Your task to perform on an android device: Go to CNN.com Image 0: 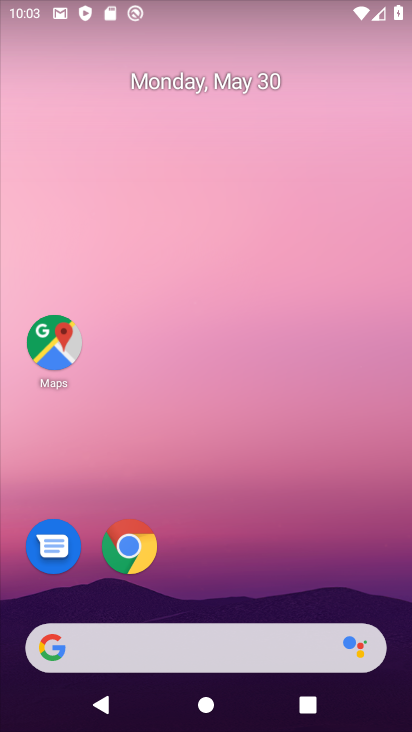
Step 0: click (129, 535)
Your task to perform on an android device: Go to CNN.com Image 1: 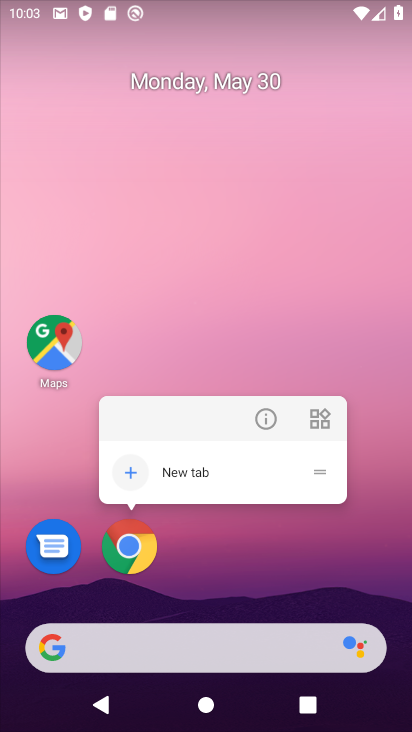
Step 1: click (129, 535)
Your task to perform on an android device: Go to CNN.com Image 2: 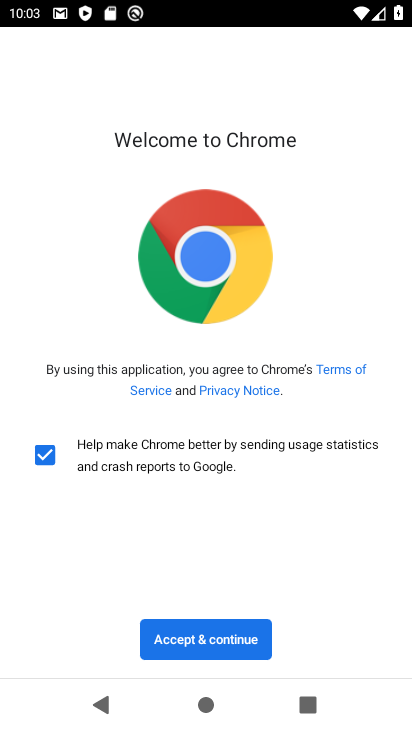
Step 2: click (202, 636)
Your task to perform on an android device: Go to CNN.com Image 3: 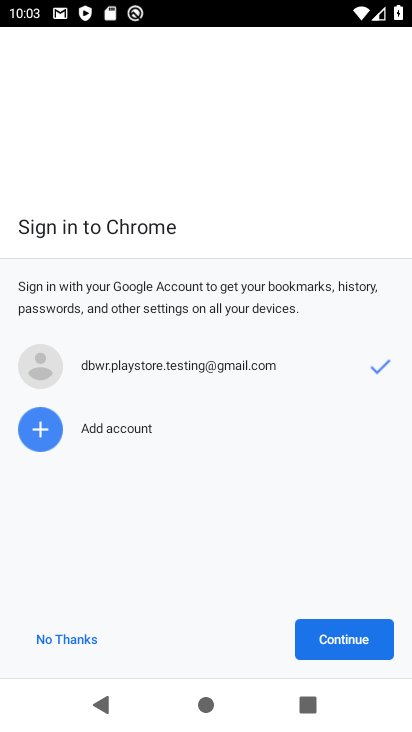
Step 3: click (345, 636)
Your task to perform on an android device: Go to CNN.com Image 4: 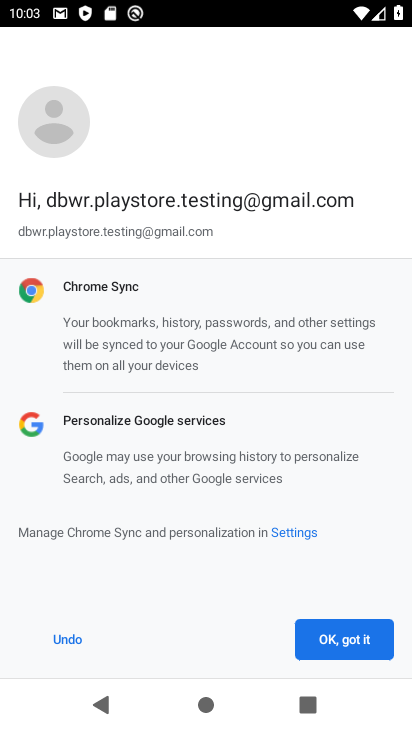
Step 4: click (344, 636)
Your task to perform on an android device: Go to CNN.com Image 5: 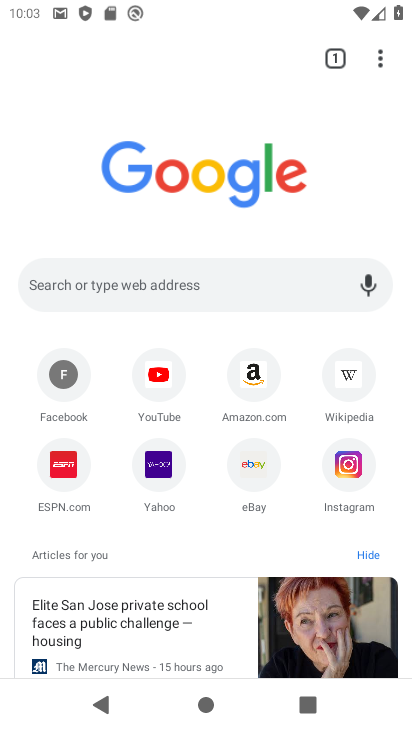
Step 5: click (107, 280)
Your task to perform on an android device: Go to CNN.com Image 6: 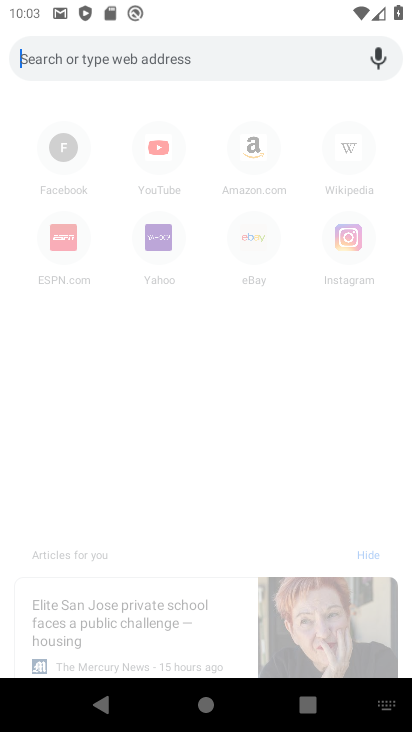
Step 6: type "cnn.com"
Your task to perform on an android device: Go to CNN.com Image 7: 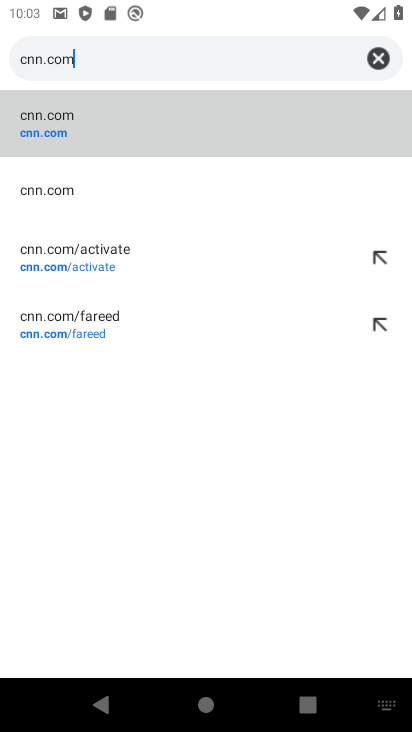
Step 7: click (81, 130)
Your task to perform on an android device: Go to CNN.com Image 8: 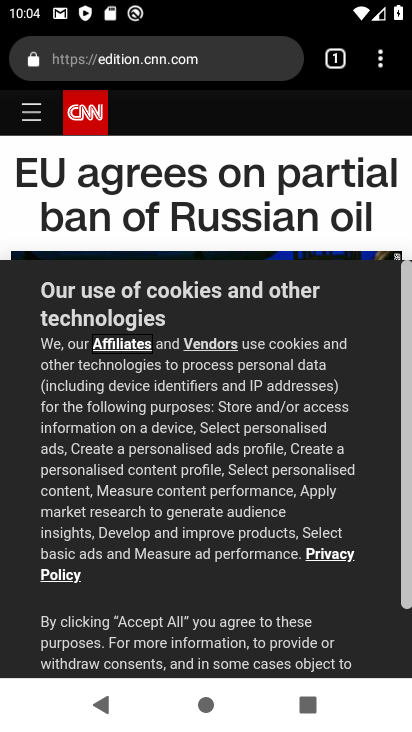
Step 8: drag from (215, 606) to (268, 157)
Your task to perform on an android device: Go to CNN.com Image 9: 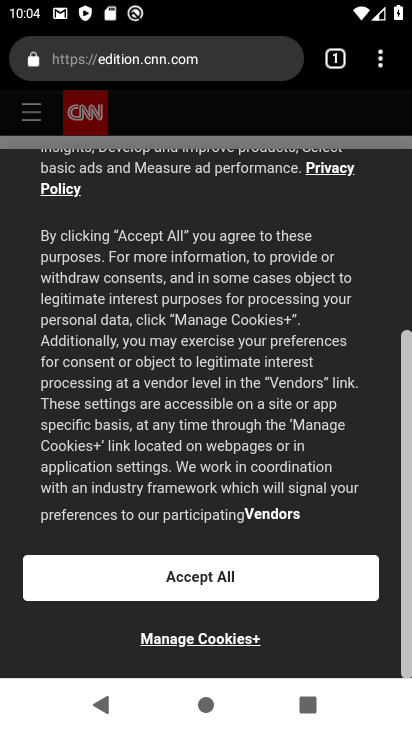
Step 9: drag from (214, 598) to (265, 144)
Your task to perform on an android device: Go to CNN.com Image 10: 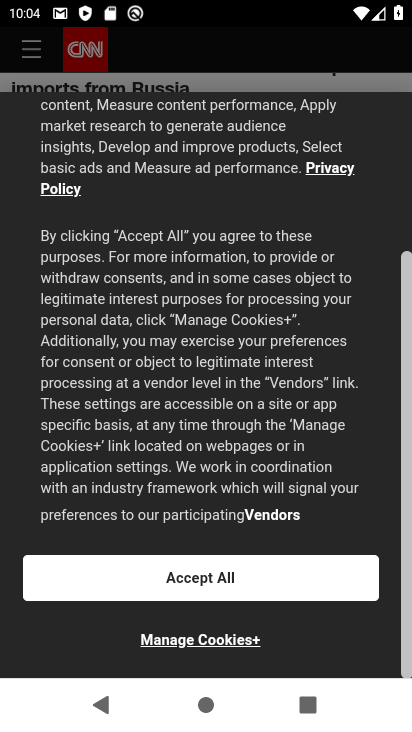
Step 10: click (202, 577)
Your task to perform on an android device: Go to CNN.com Image 11: 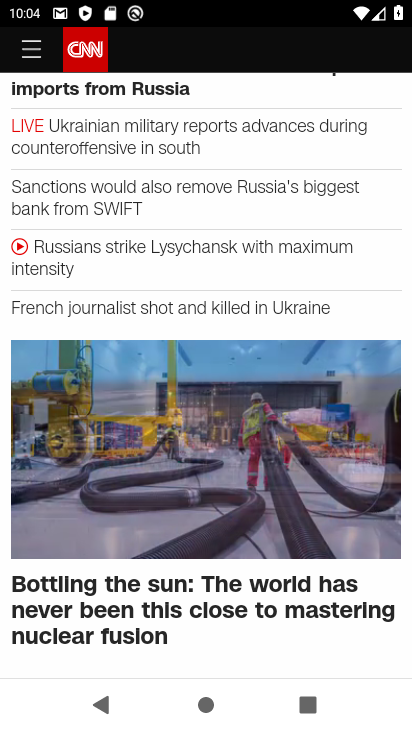
Step 11: task complete